Your task to perform on an android device: check out phone information Image 0: 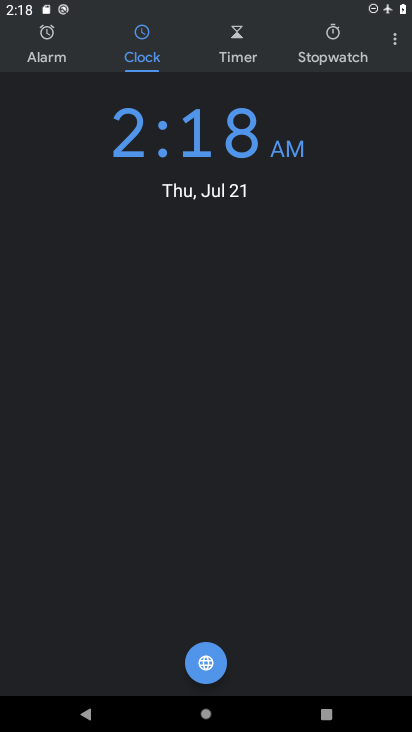
Step 0: press home button
Your task to perform on an android device: check out phone information Image 1: 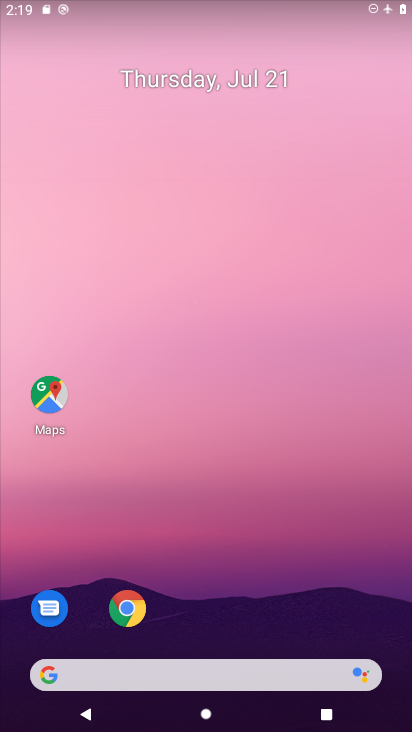
Step 1: drag from (239, 717) to (152, 5)
Your task to perform on an android device: check out phone information Image 2: 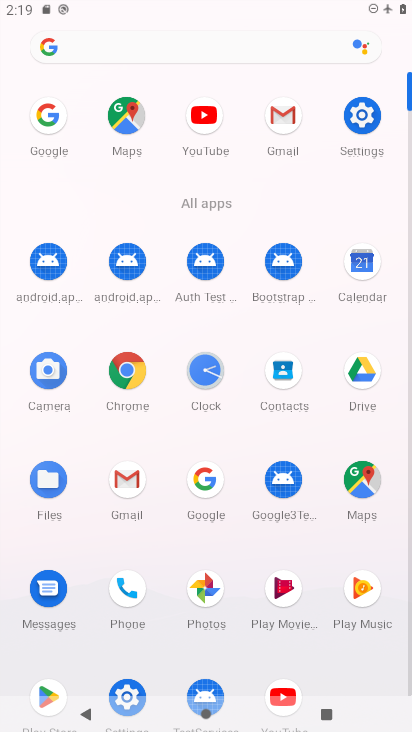
Step 2: click (355, 107)
Your task to perform on an android device: check out phone information Image 3: 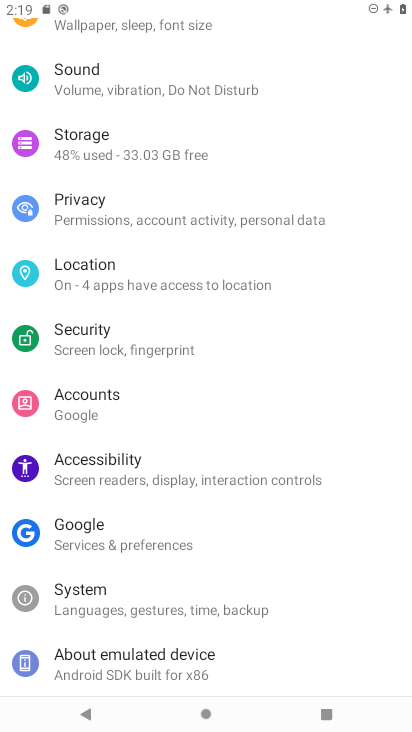
Step 3: click (162, 662)
Your task to perform on an android device: check out phone information Image 4: 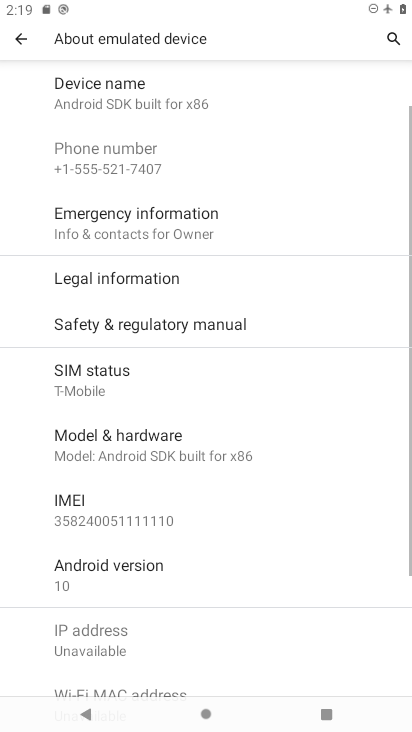
Step 4: task complete